Your task to perform on an android device: Go to notification settings Image 0: 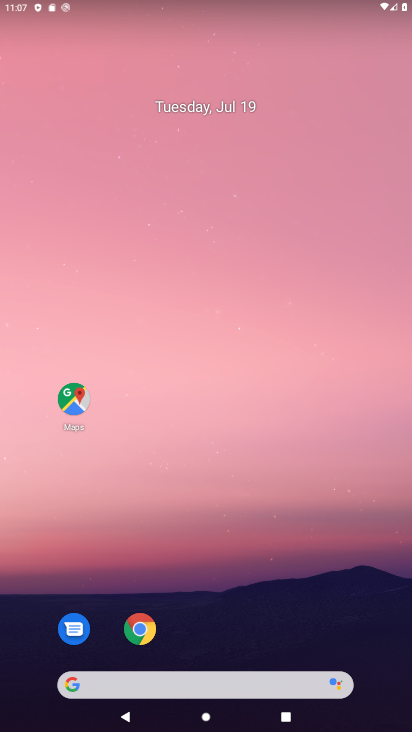
Step 0: drag from (264, 635) to (261, 197)
Your task to perform on an android device: Go to notification settings Image 1: 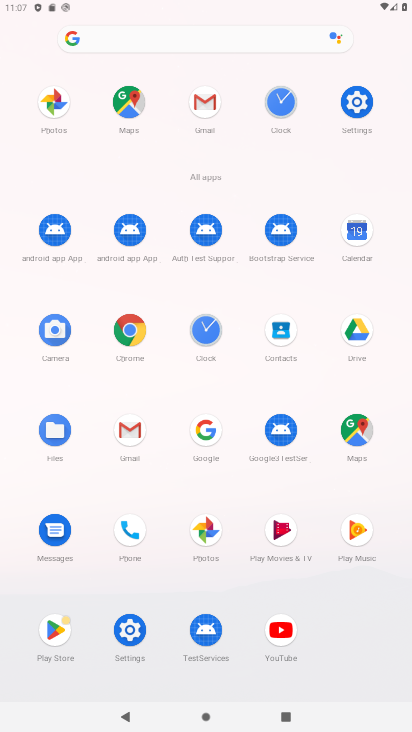
Step 1: click (358, 105)
Your task to perform on an android device: Go to notification settings Image 2: 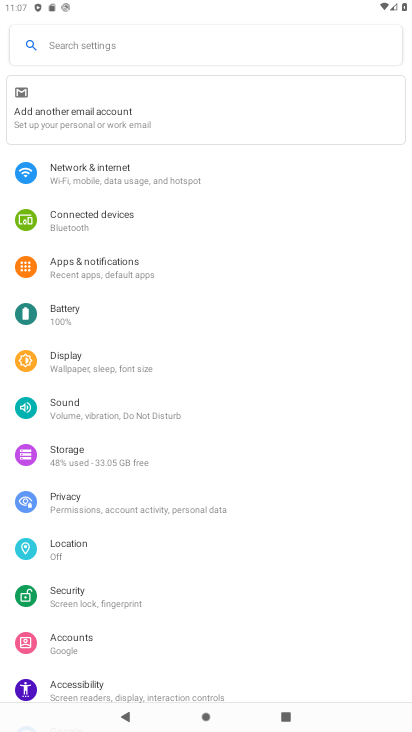
Step 2: click (192, 269)
Your task to perform on an android device: Go to notification settings Image 3: 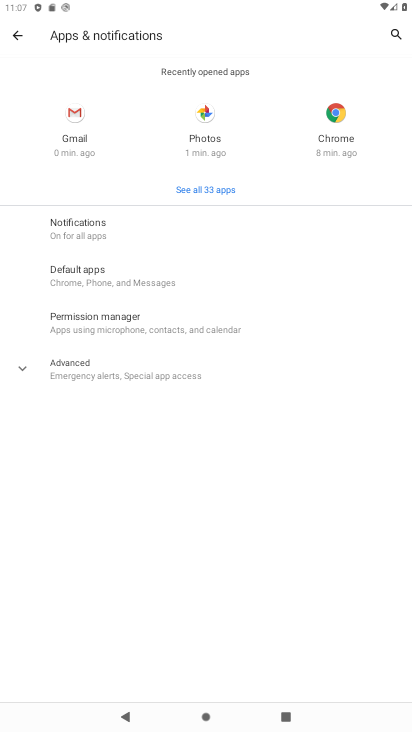
Step 3: click (209, 223)
Your task to perform on an android device: Go to notification settings Image 4: 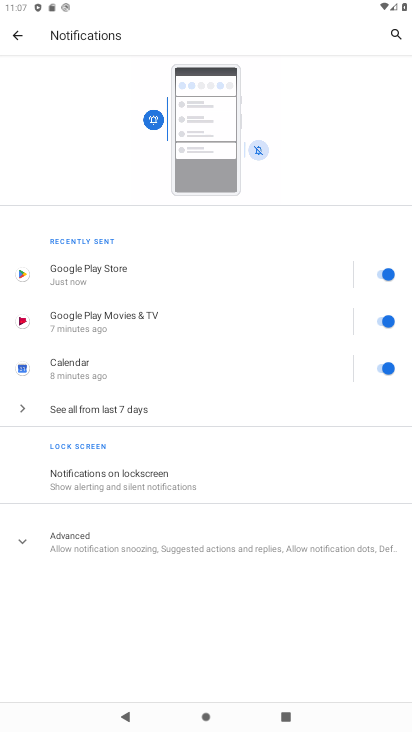
Step 4: task complete